Your task to perform on an android device: clear history in the chrome app Image 0: 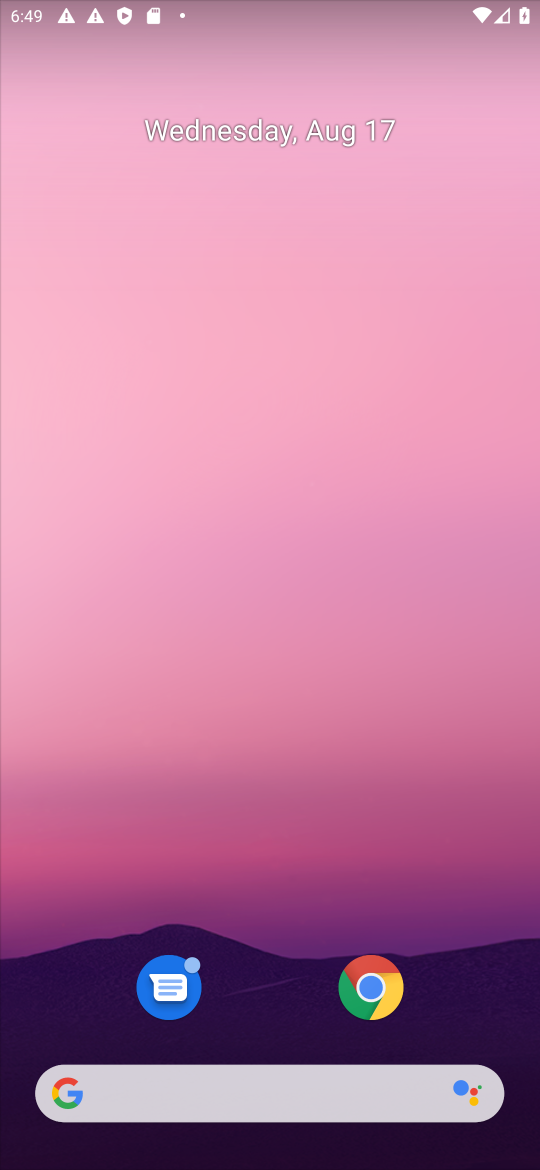
Step 0: drag from (485, 1021) to (219, 9)
Your task to perform on an android device: clear history in the chrome app Image 1: 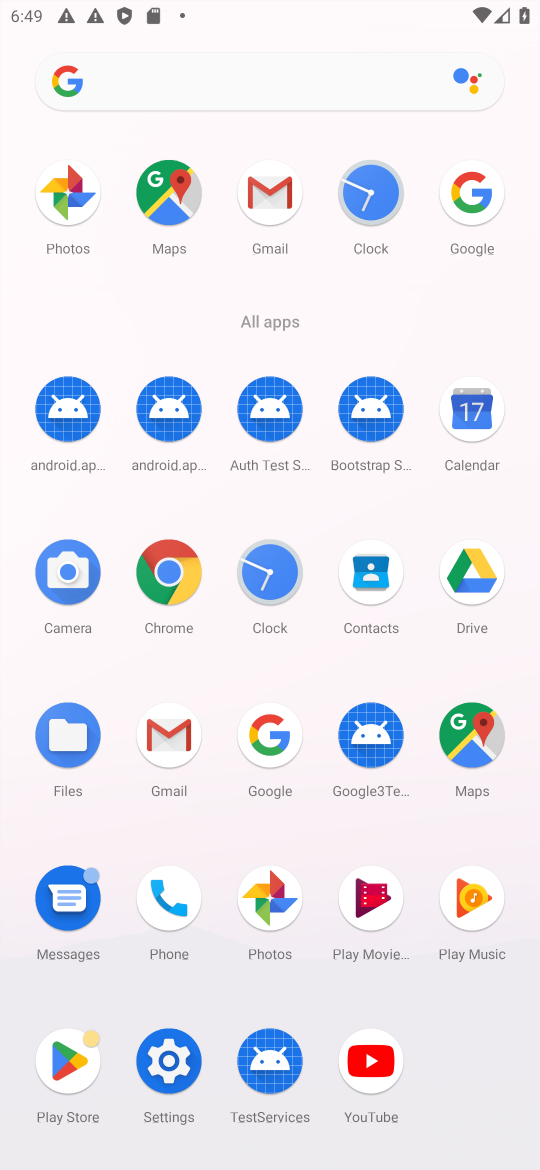
Step 1: click (146, 559)
Your task to perform on an android device: clear history in the chrome app Image 2: 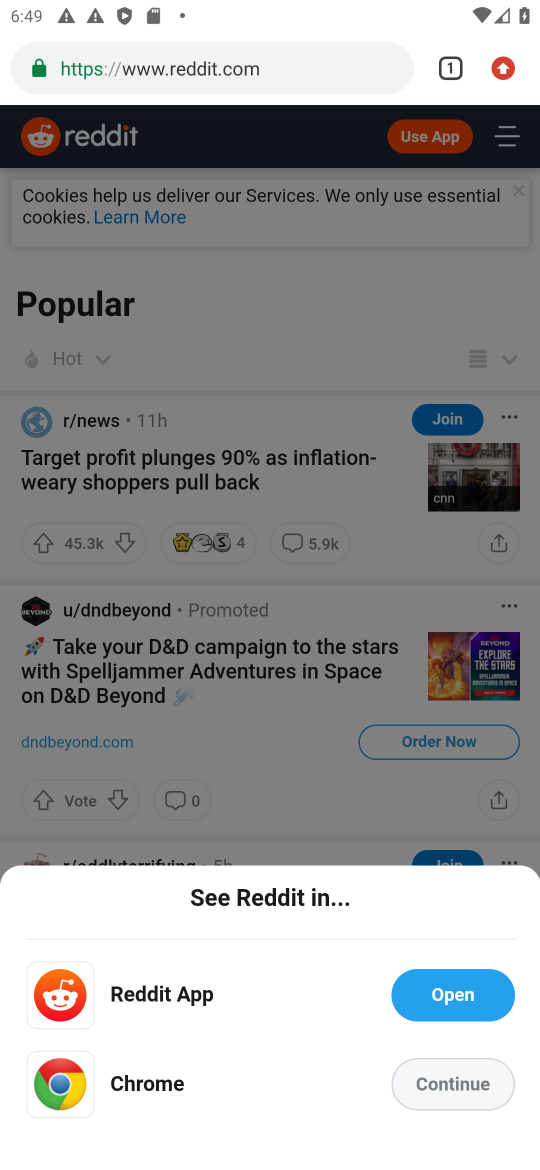
Step 2: click (497, 68)
Your task to perform on an android device: clear history in the chrome app Image 3: 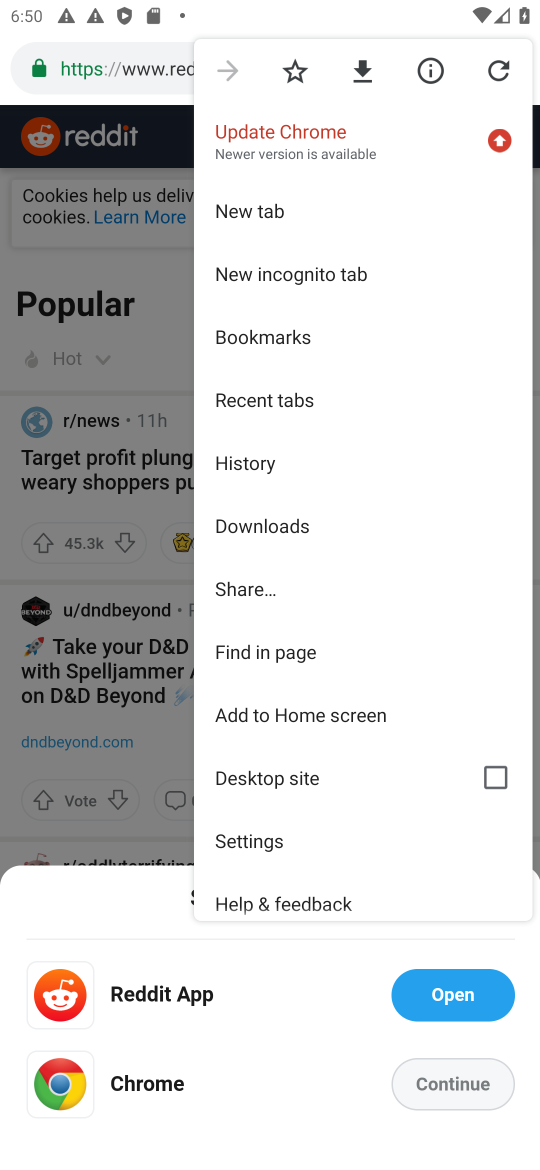
Step 3: click (251, 455)
Your task to perform on an android device: clear history in the chrome app Image 4: 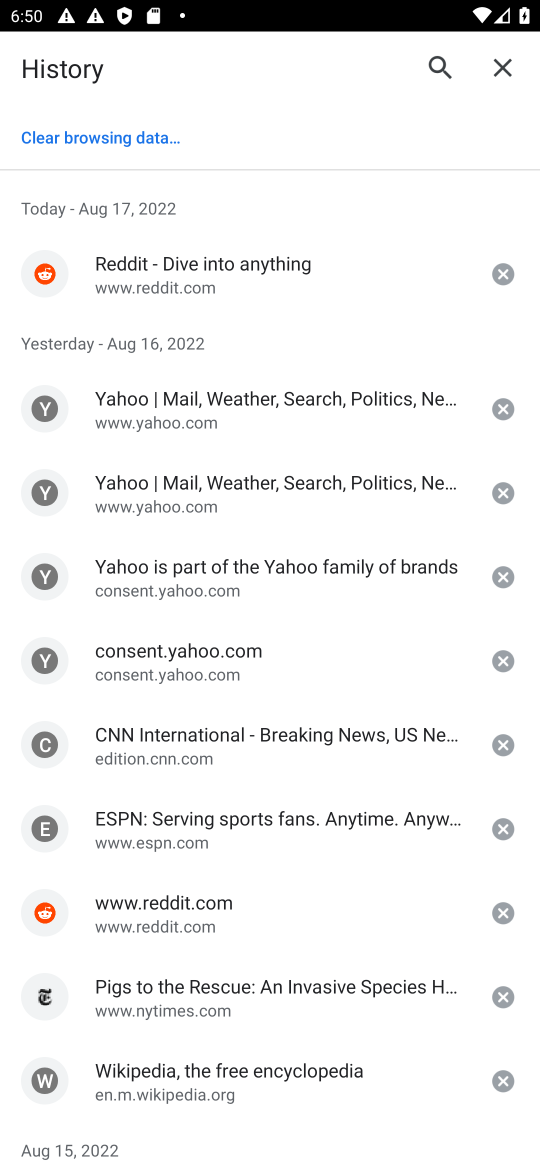
Step 4: click (130, 133)
Your task to perform on an android device: clear history in the chrome app Image 5: 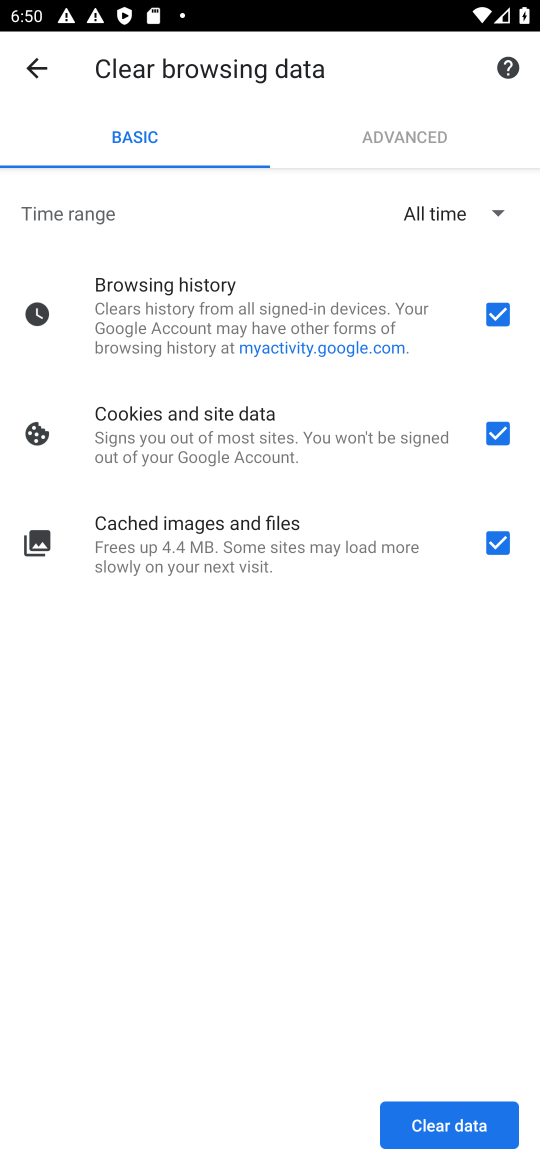
Step 5: click (451, 1120)
Your task to perform on an android device: clear history in the chrome app Image 6: 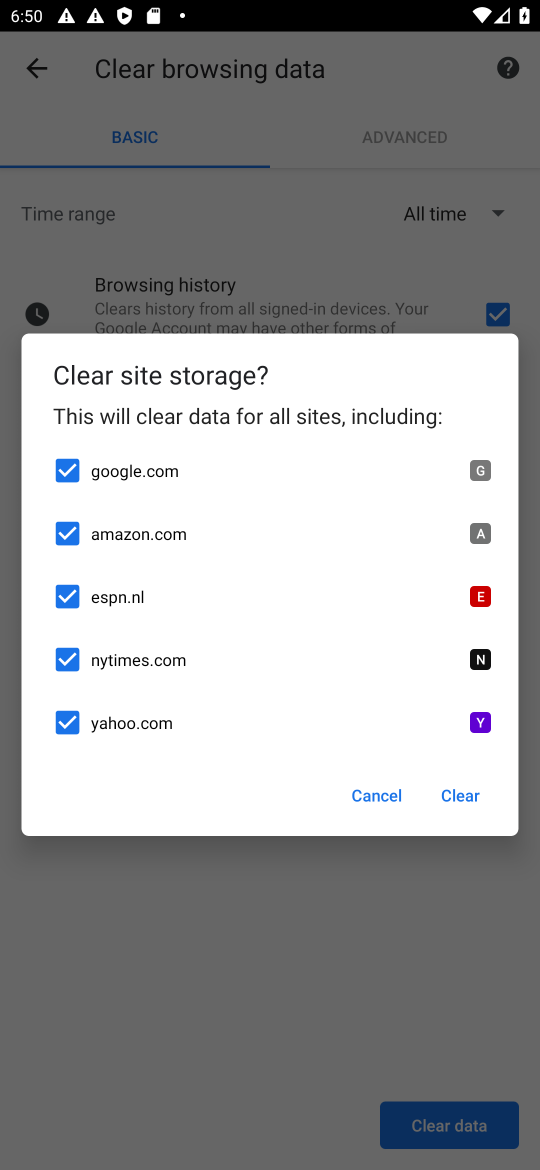
Step 6: click (482, 799)
Your task to perform on an android device: clear history in the chrome app Image 7: 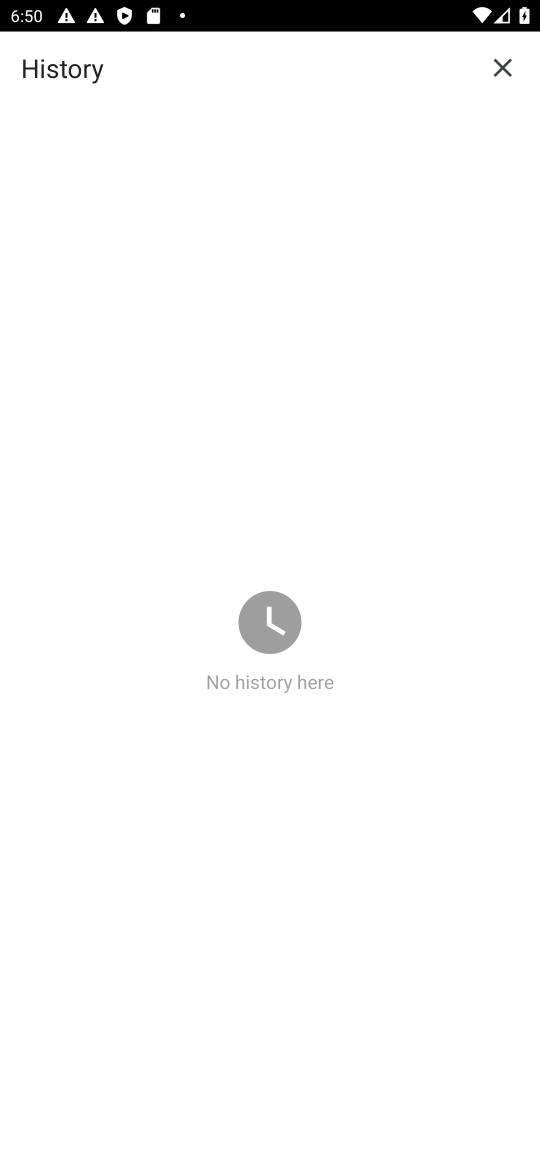
Step 7: task complete